Your task to perform on an android device: turn off location history Image 0: 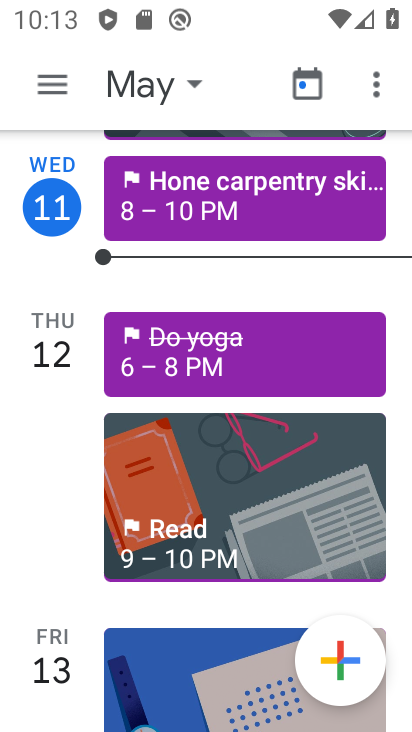
Step 0: press home button
Your task to perform on an android device: turn off location history Image 1: 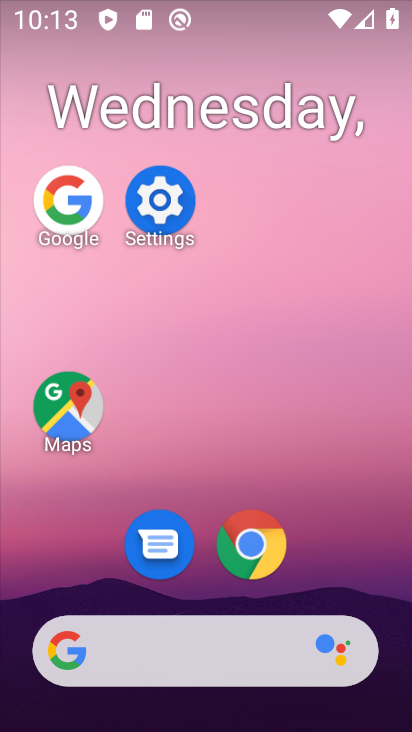
Step 1: click (182, 205)
Your task to perform on an android device: turn off location history Image 2: 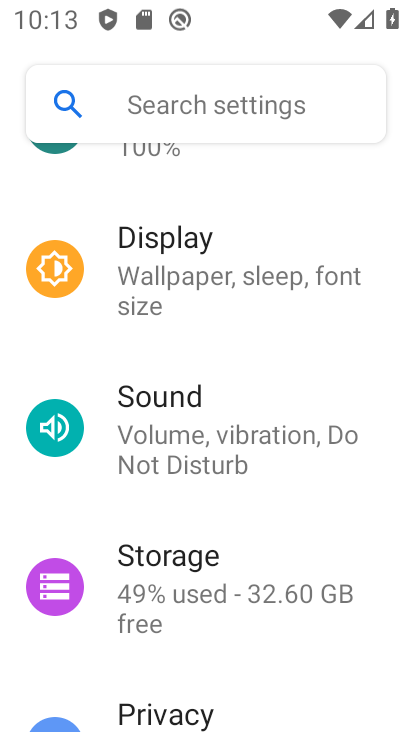
Step 2: drag from (182, 656) to (244, 200)
Your task to perform on an android device: turn off location history Image 3: 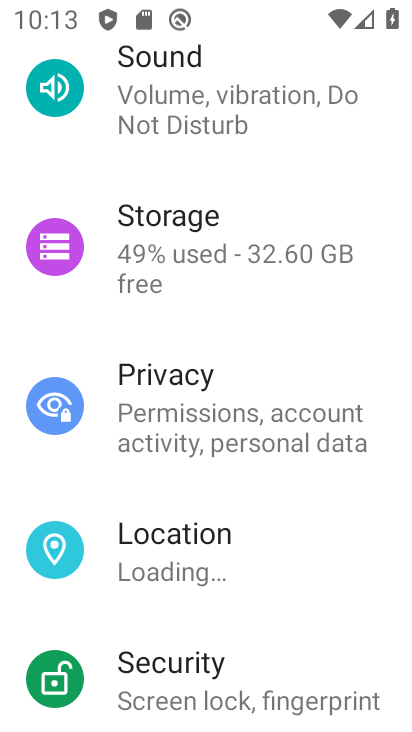
Step 3: click (148, 550)
Your task to perform on an android device: turn off location history Image 4: 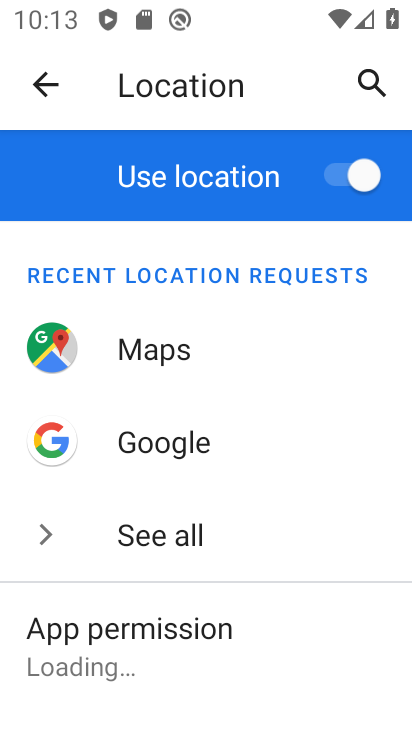
Step 4: drag from (167, 623) to (258, 304)
Your task to perform on an android device: turn off location history Image 5: 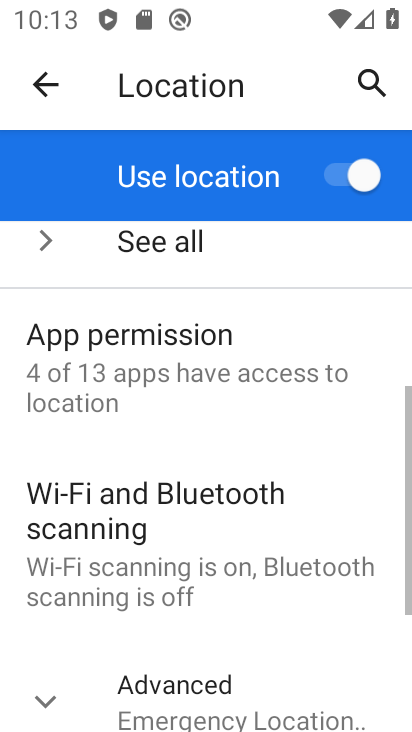
Step 5: click (163, 667)
Your task to perform on an android device: turn off location history Image 6: 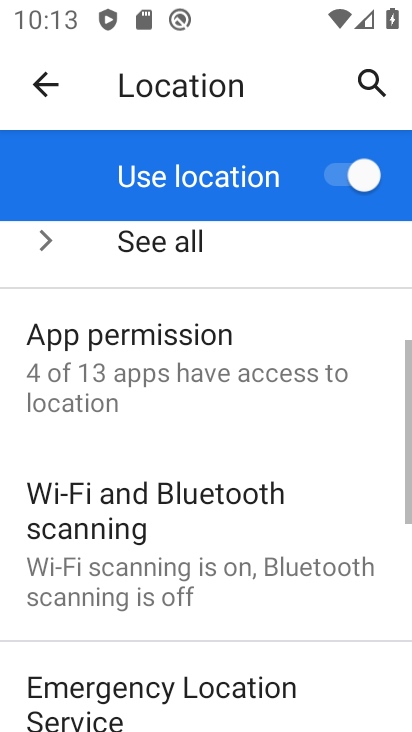
Step 6: drag from (163, 667) to (217, 254)
Your task to perform on an android device: turn off location history Image 7: 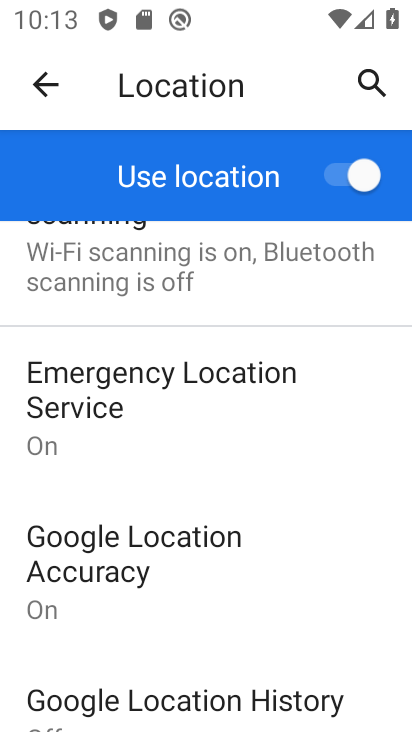
Step 7: drag from (200, 658) to (281, 322)
Your task to perform on an android device: turn off location history Image 8: 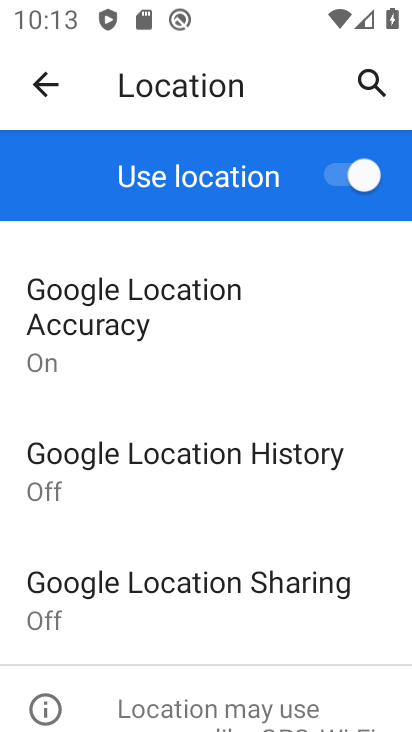
Step 8: click (220, 484)
Your task to perform on an android device: turn off location history Image 9: 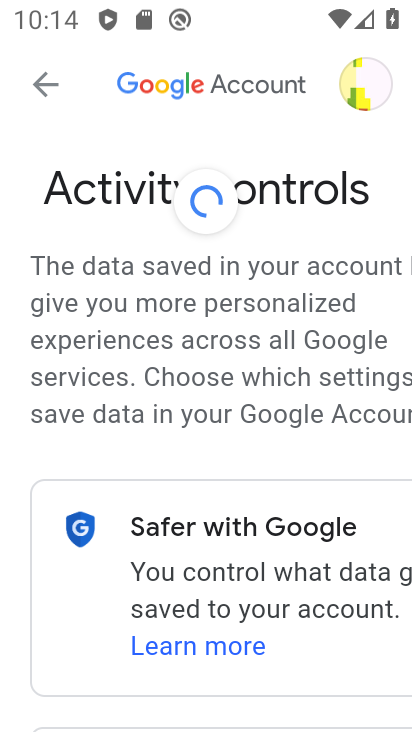
Step 9: task complete